Your task to perform on an android device: What's the US dollar exchange rate against the Euro? Image 0: 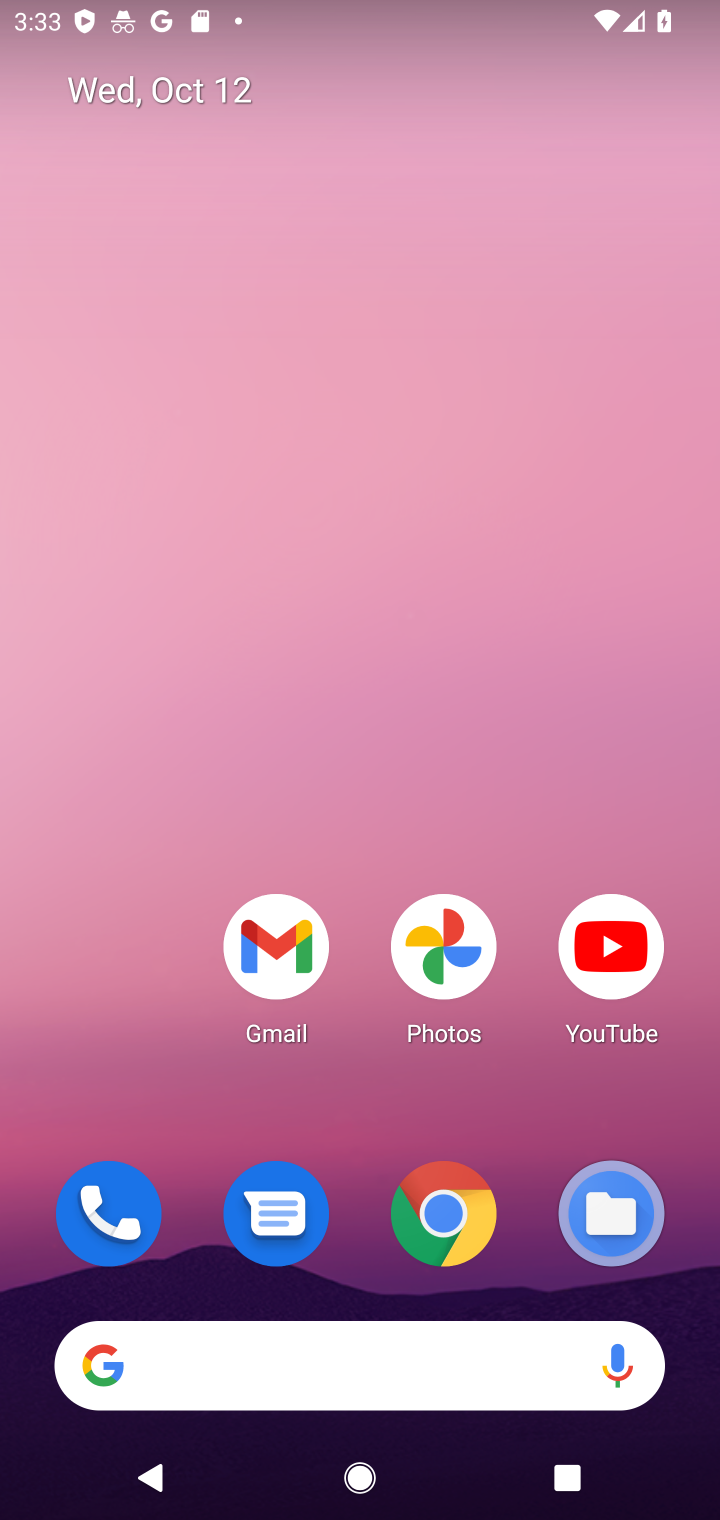
Step 0: click (285, 1392)
Your task to perform on an android device: What's the US dollar exchange rate against the Euro? Image 1: 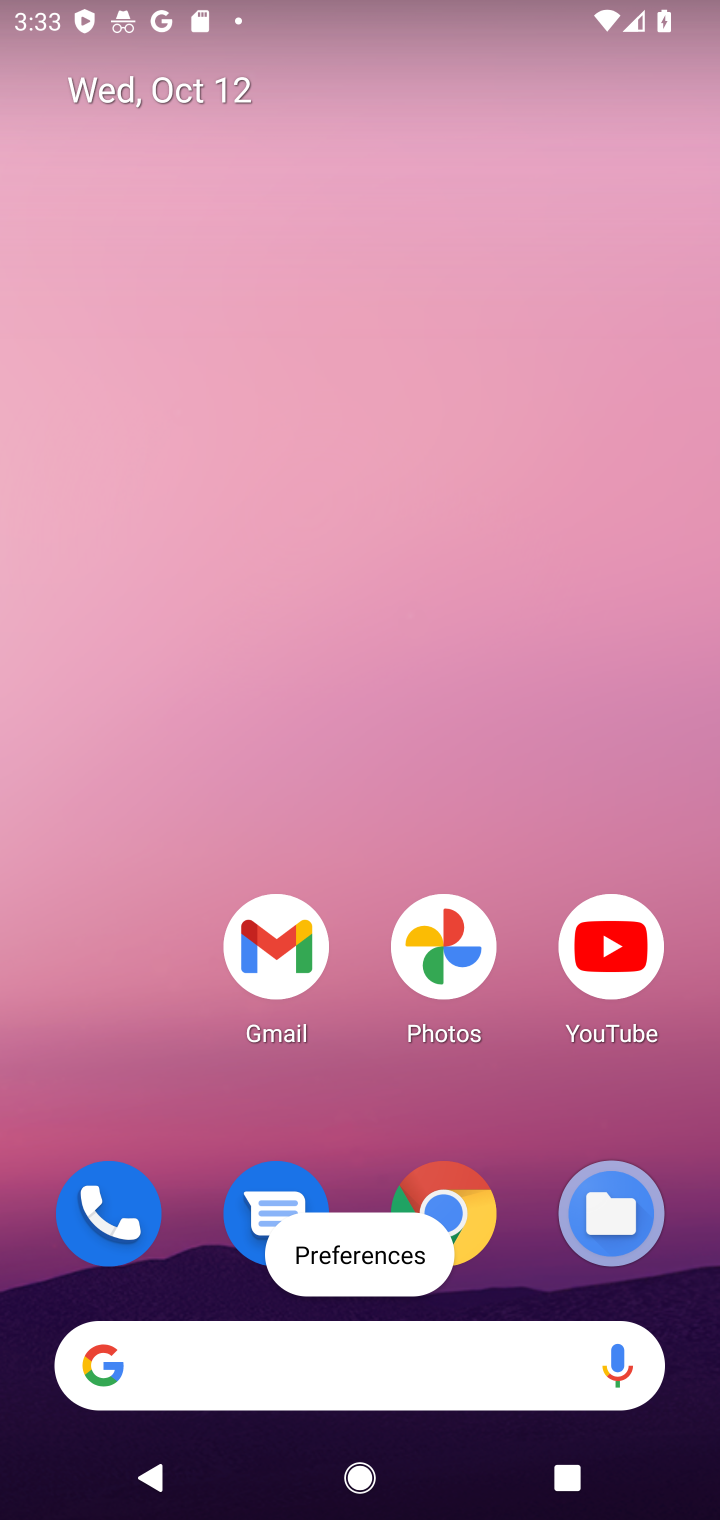
Step 1: click (252, 1382)
Your task to perform on an android device: What's the US dollar exchange rate against the Euro? Image 2: 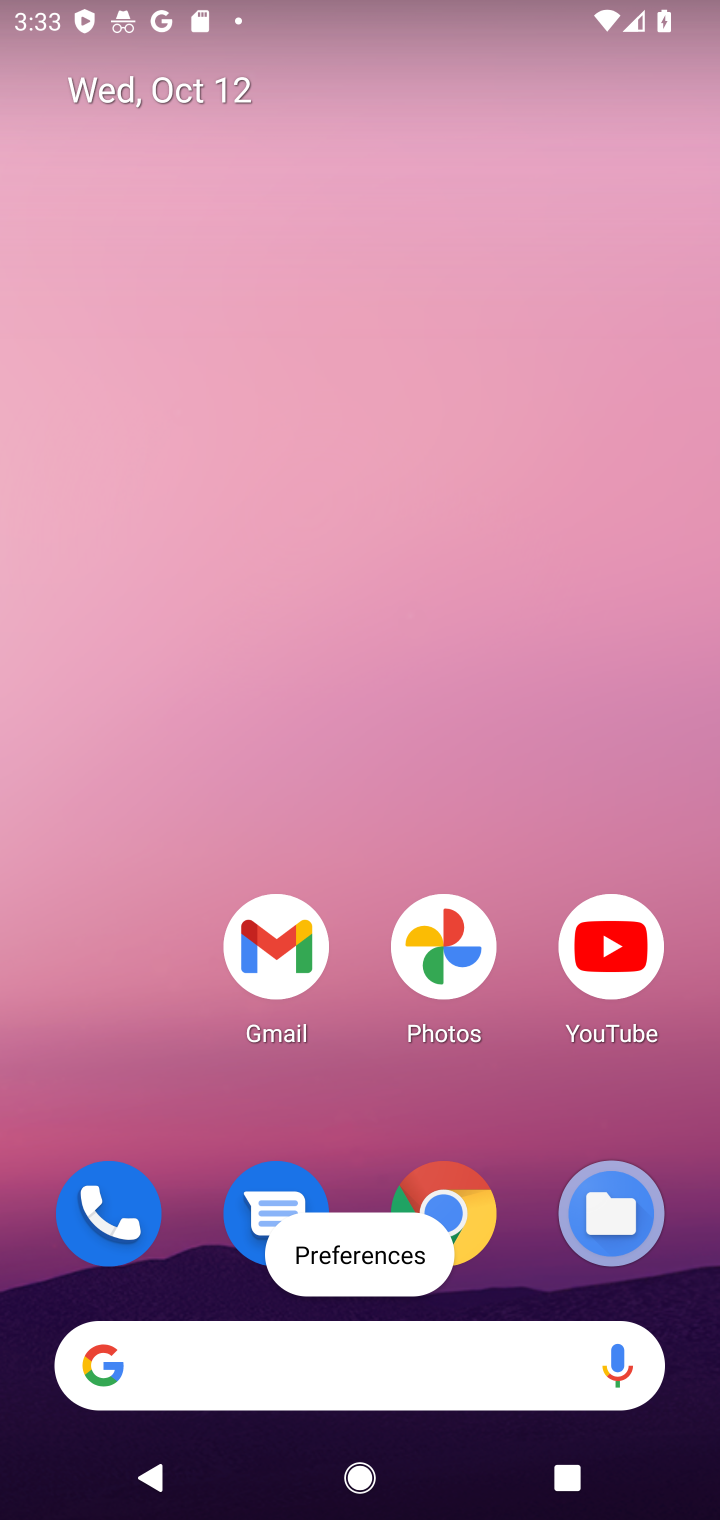
Step 2: click (257, 1378)
Your task to perform on an android device: What's the US dollar exchange rate against the Euro? Image 3: 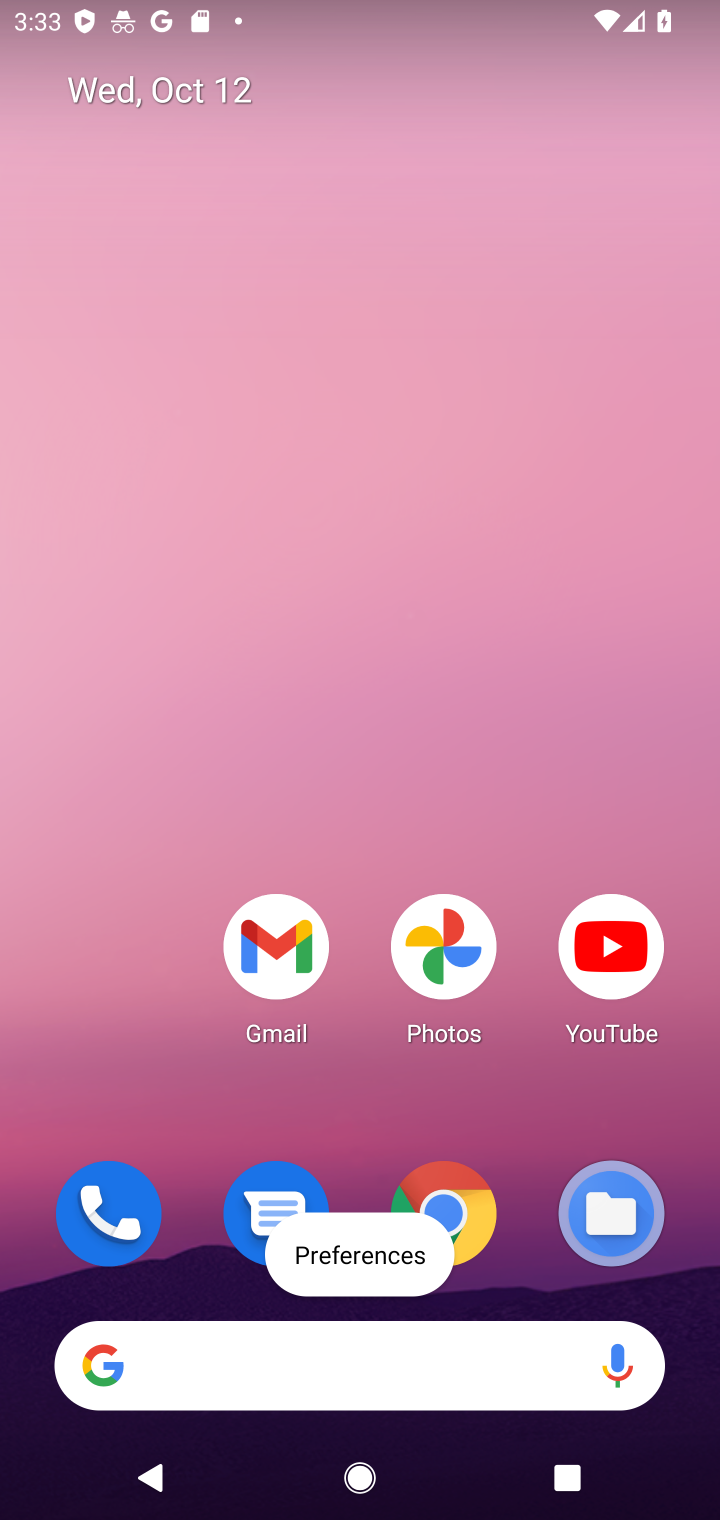
Step 3: click (255, 1341)
Your task to perform on an android device: What's the US dollar exchange rate against the Euro? Image 4: 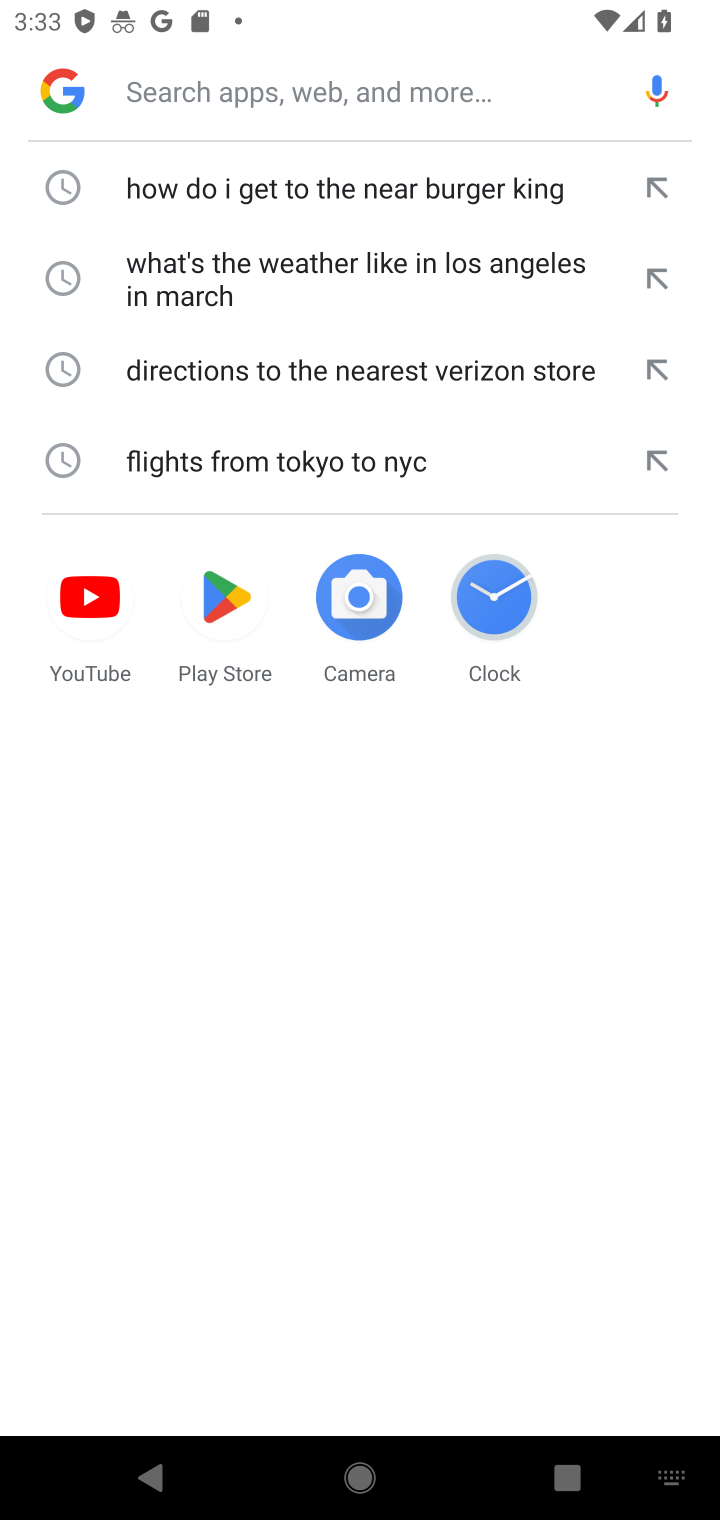
Step 4: click (364, 109)
Your task to perform on an android device: What's the US dollar exchange rate against the Euro? Image 5: 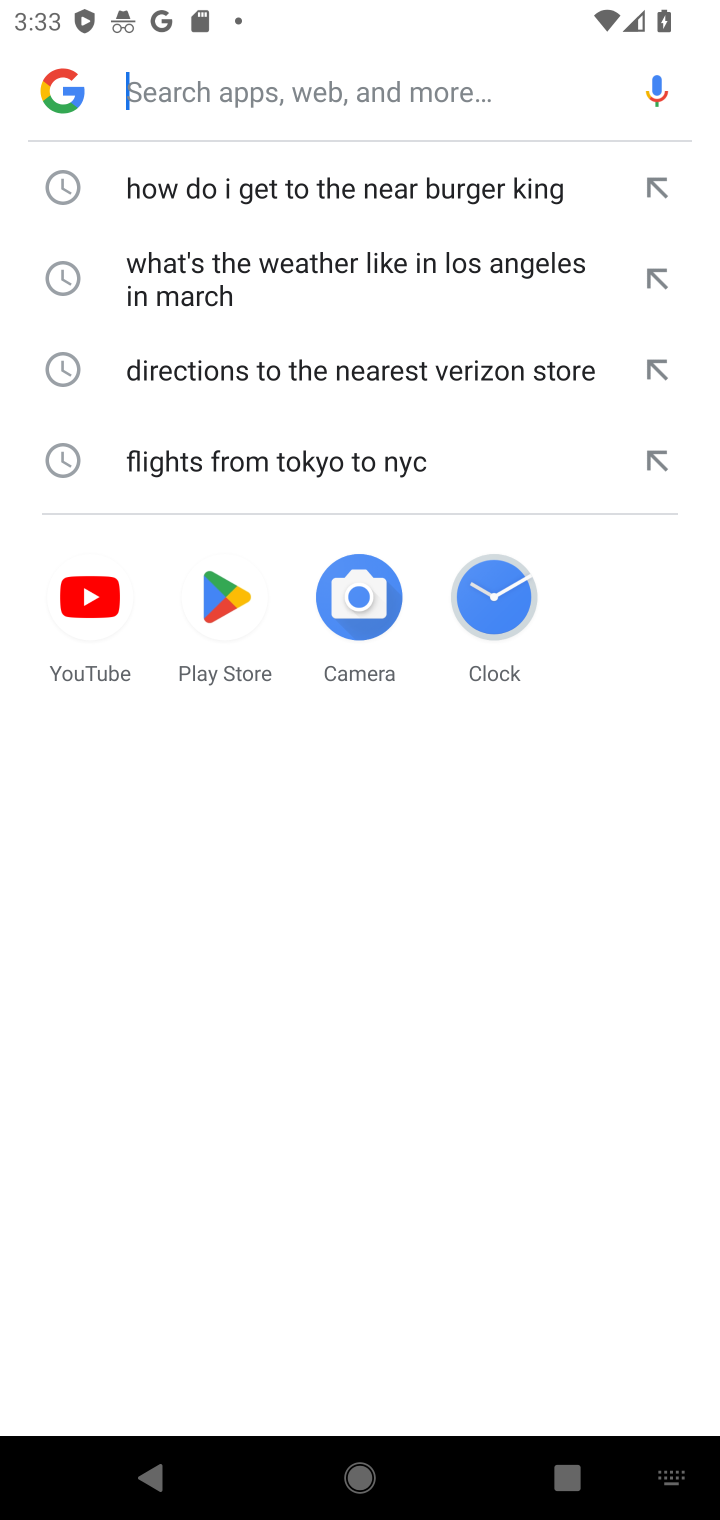
Step 5: type "What's the US dollar exchange rate against the Euro?"
Your task to perform on an android device: What's the US dollar exchange rate against the Euro? Image 6: 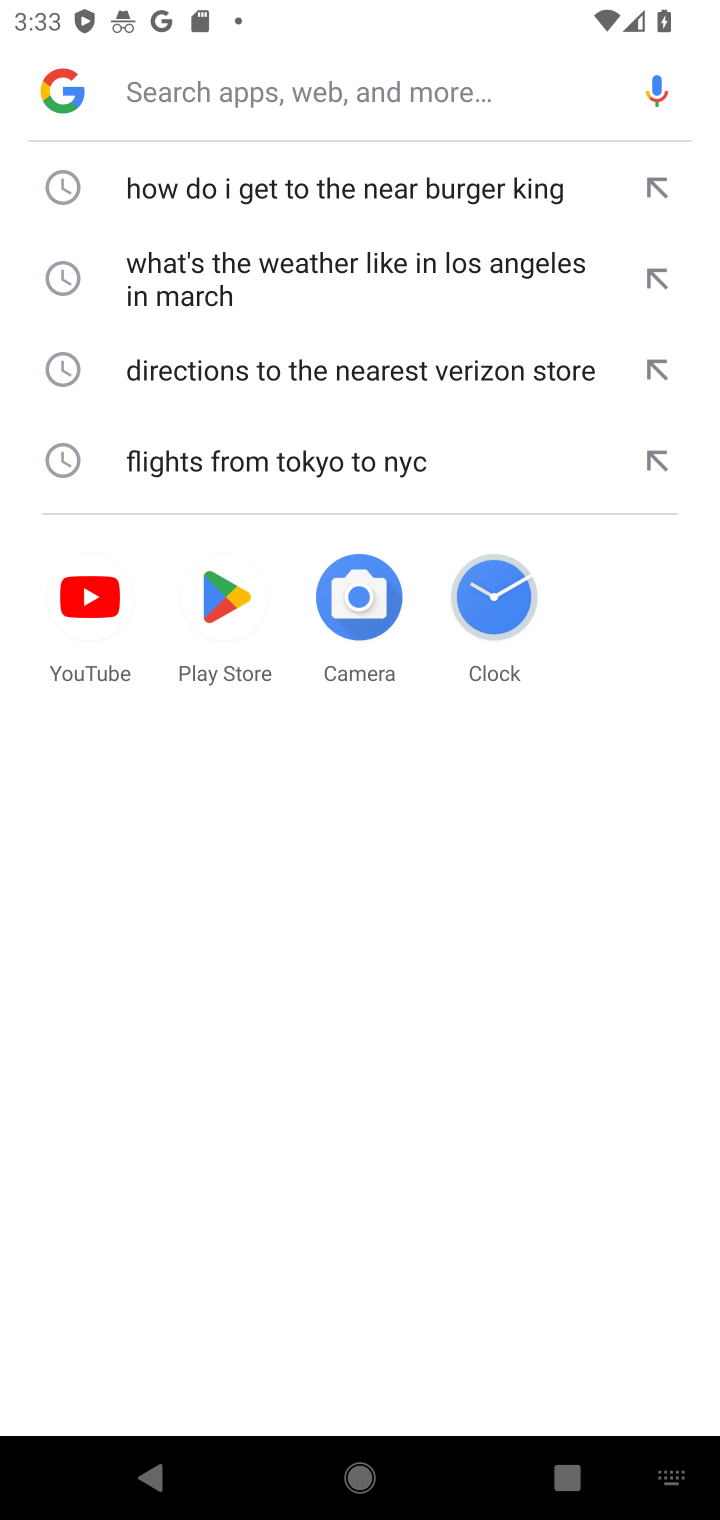
Step 6: click (418, 1170)
Your task to perform on an android device: What's the US dollar exchange rate against the Euro? Image 7: 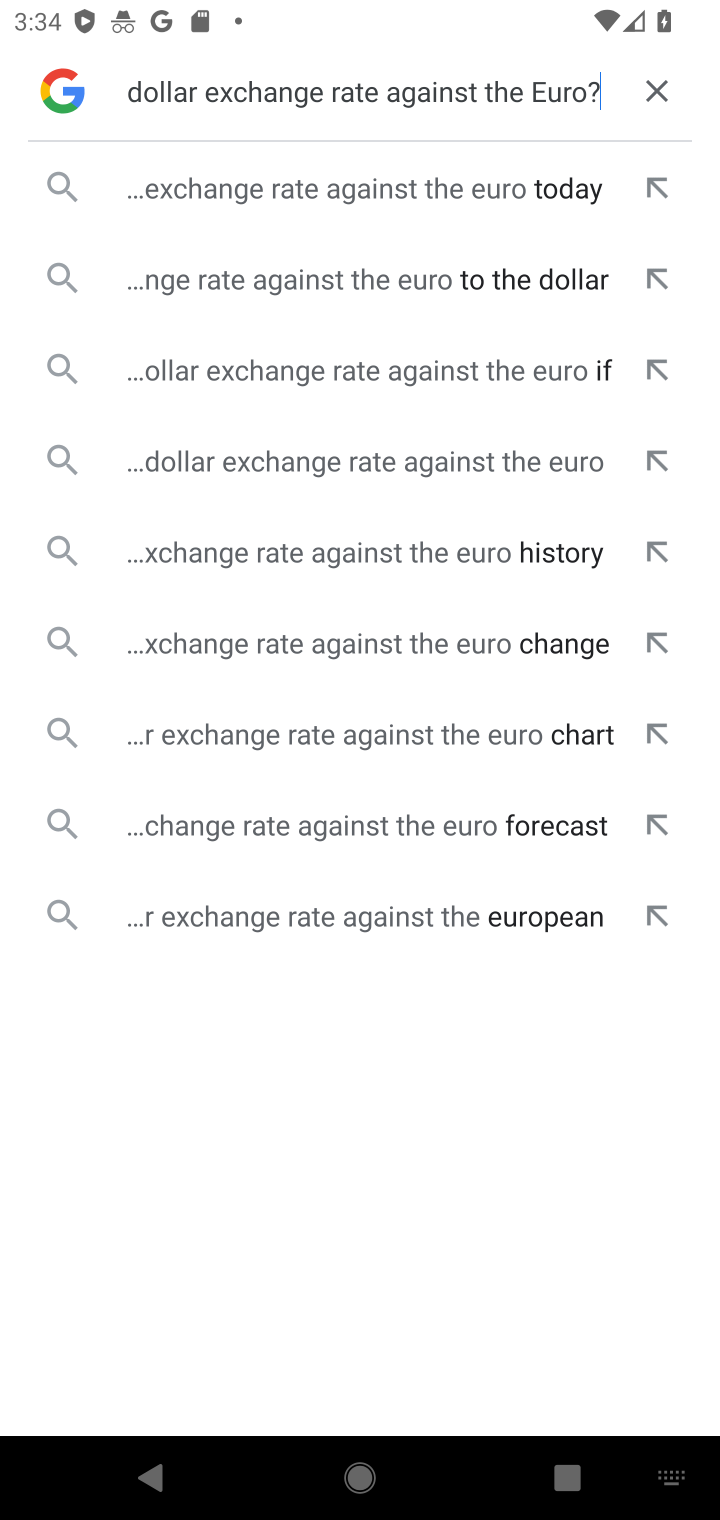
Step 7: click (361, 214)
Your task to perform on an android device: What's the US dollar exchange rate against the Euro? Image 8: 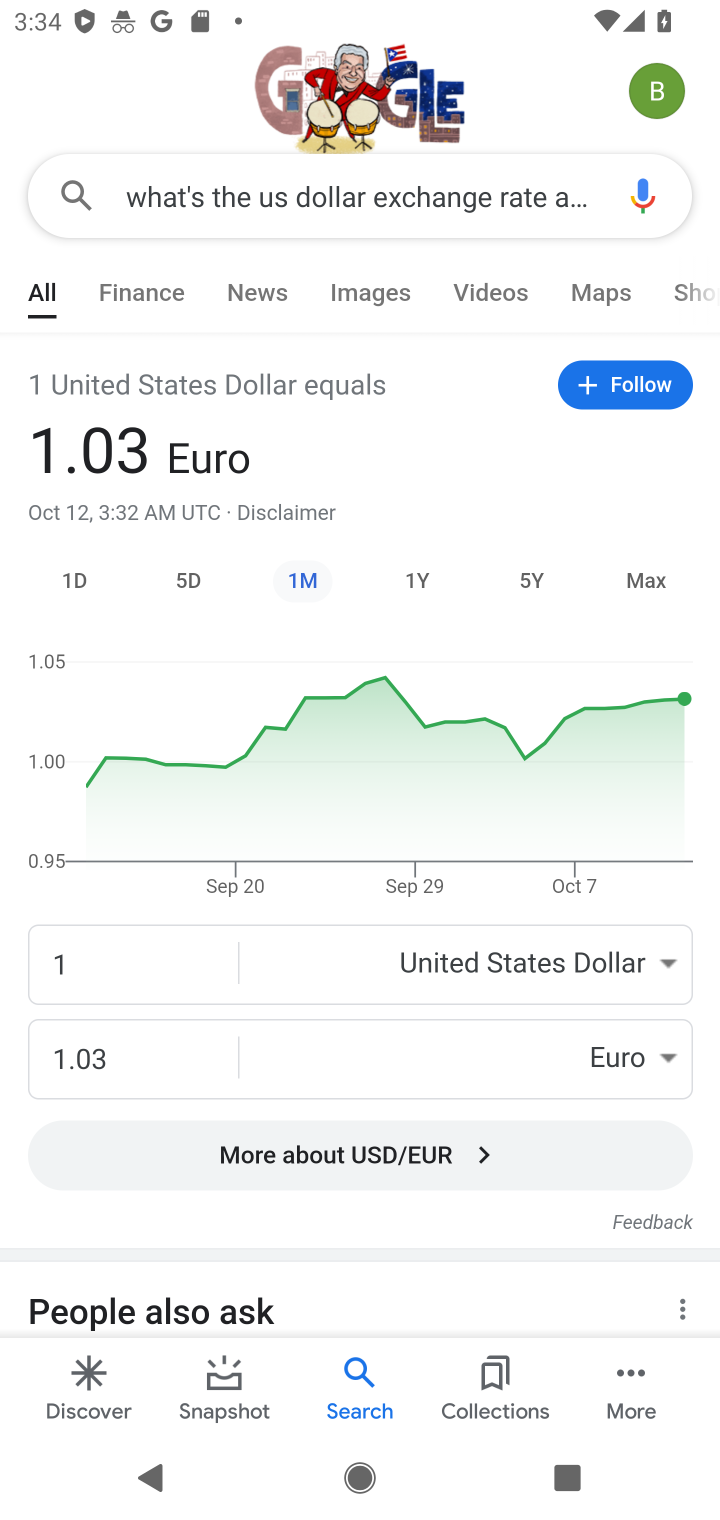
Step 8: task complete